Your task to perform on an android device: Show me popular videos on Youtube Image 0: 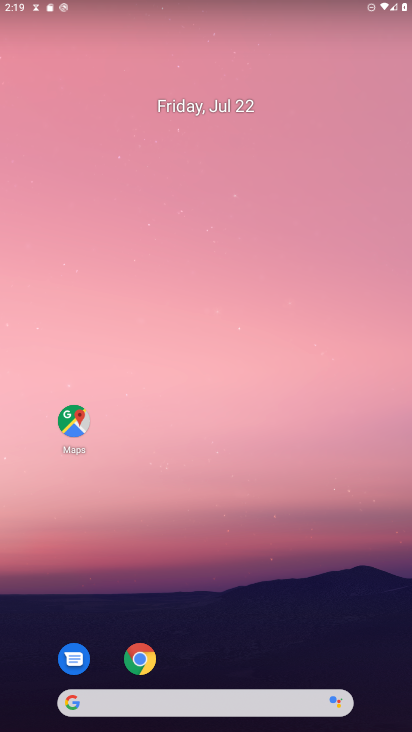
Step 0: drag from (325, 599) to (269, 123)
Your task to perform on an android device: Show me popular videos on Youtube Image 1: 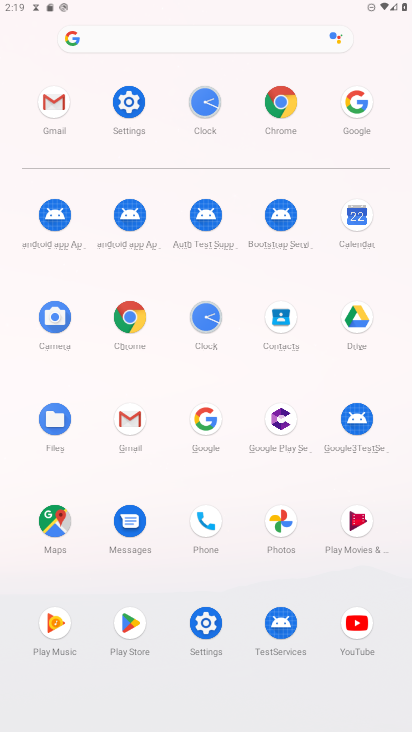
Step 1: click (366, 618)
Your task to perform on an android device: Show me popular videos on Youtube Image 2: 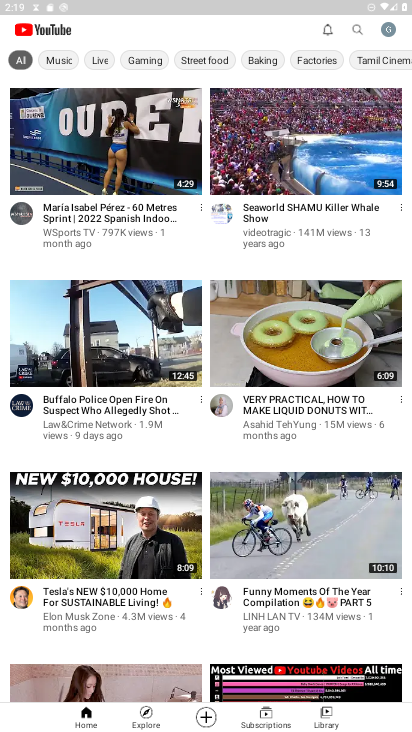
Step 2: click (360, 30)
Your task to perform on an android device: Show me popular videos on Youtube Image 3: 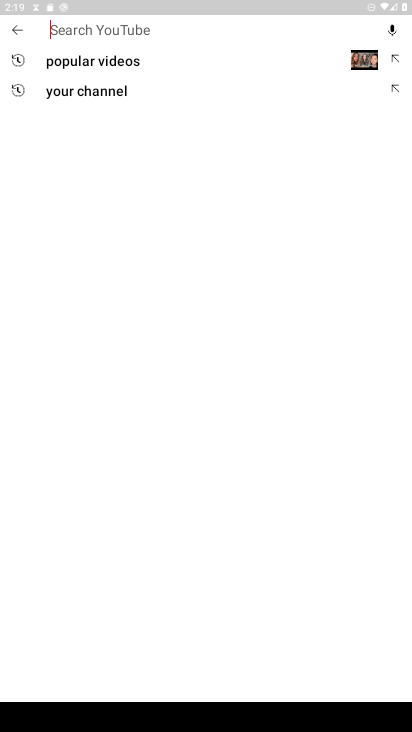
Step 3: click (113, 67)
Your task to perform on an android device: Show me popular videos on Youtube Image 4: 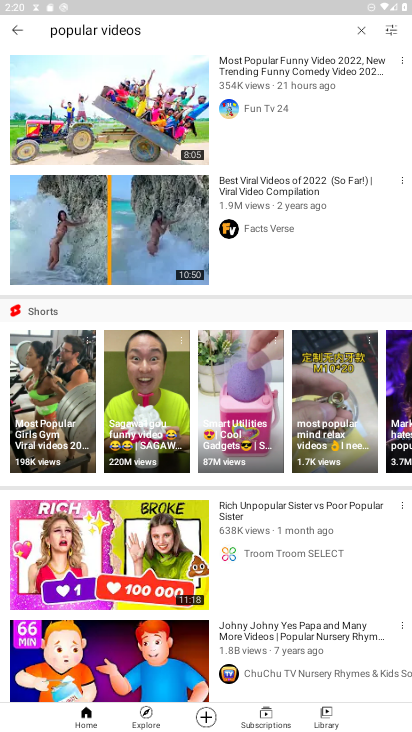
Step 4: task complete